Your task to perform on an android device: open app "Mercado Libre" (install if not already installed) Image 0: 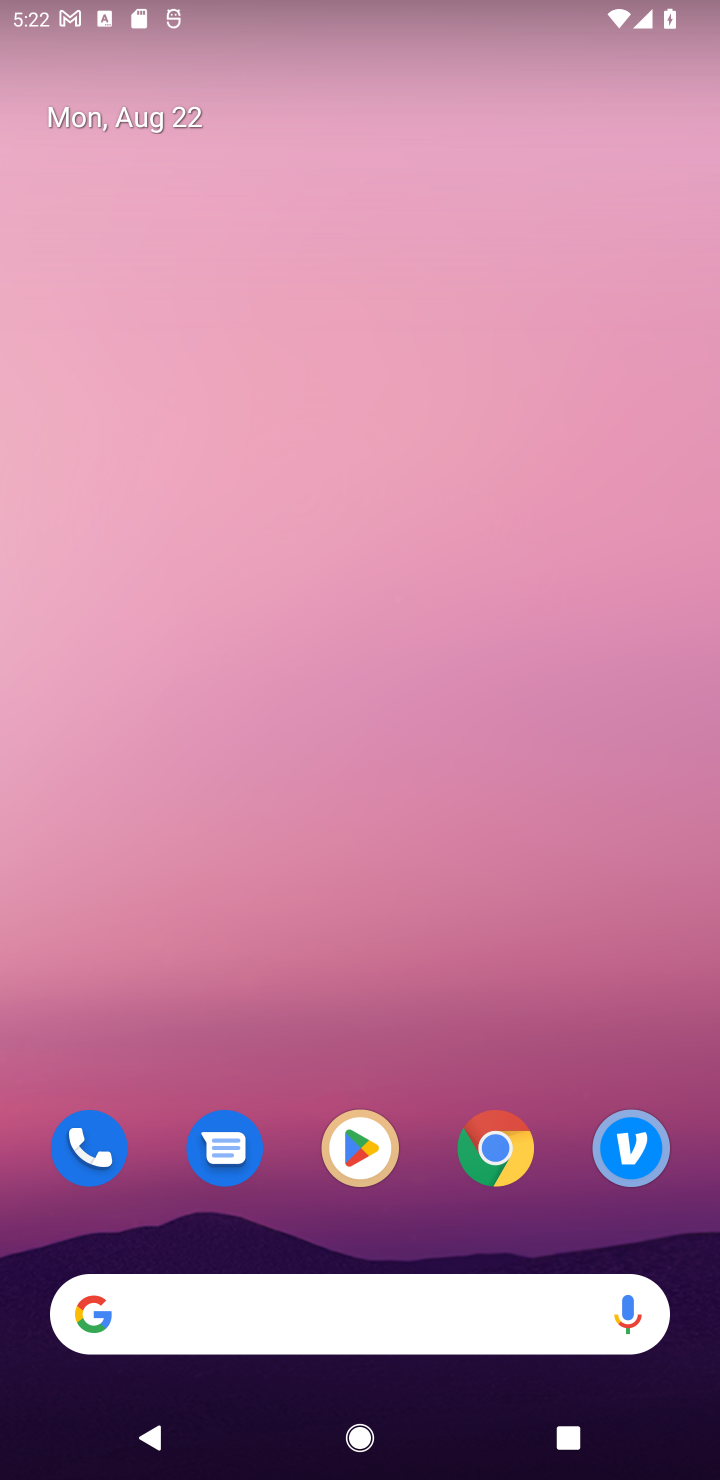
Step 0: click (358, 1154)
Your task to perform on an android device: open app "Mercado Libre" (install if not already installed) Image 1: 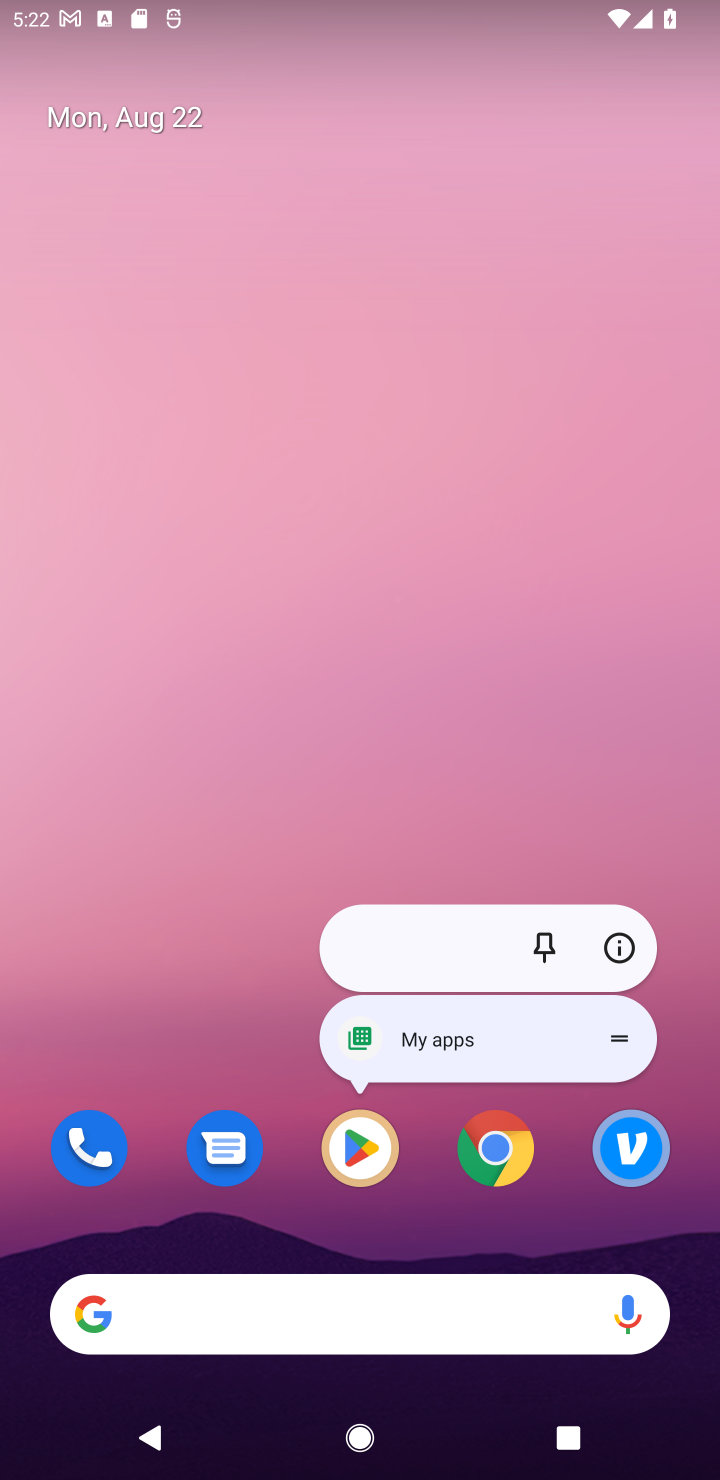
Step 1: click (377, 1140)
Your task to perform on an android device: open app "Mercado Libre" (install if not already installed) Image 2: 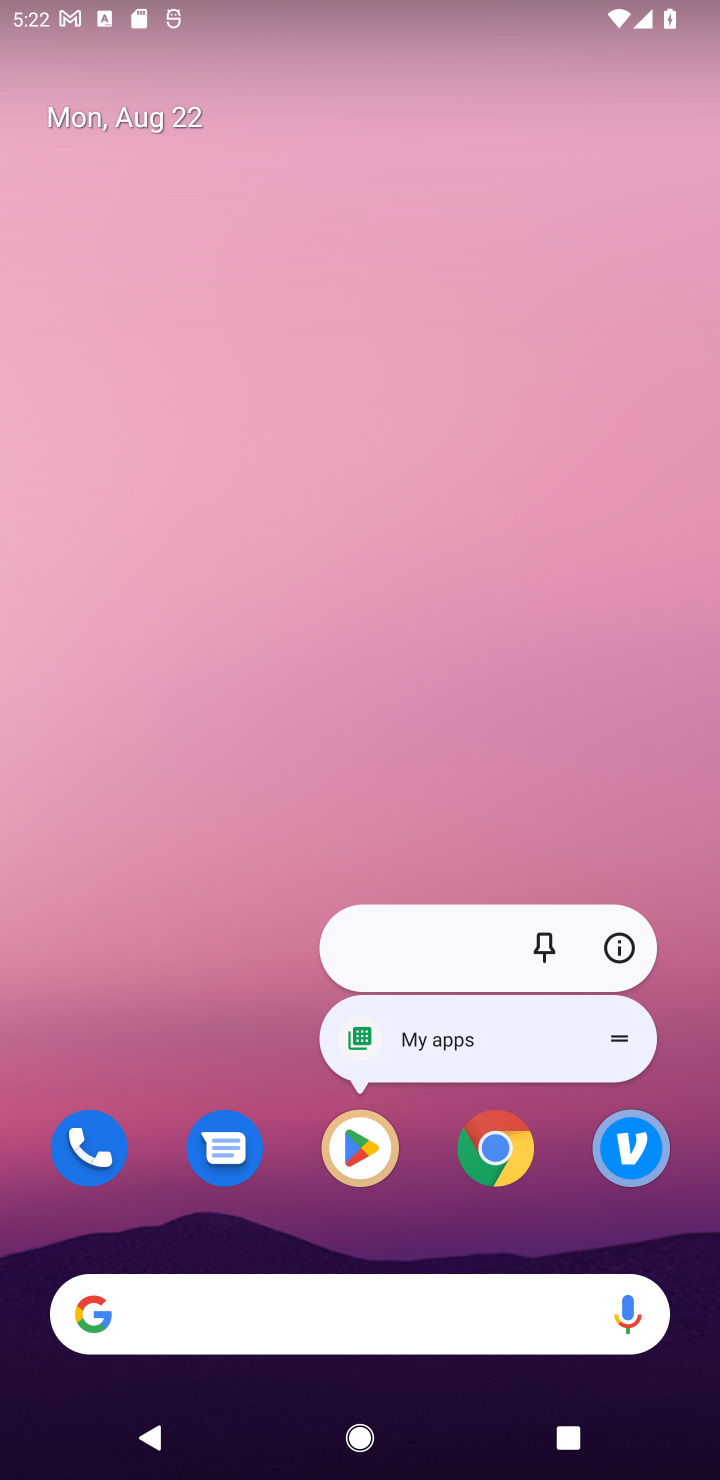
Step 2: click (368, 1165)
Your task to perform on an android device: open app "Mercado Libre" (install if not already installed) Image 3: 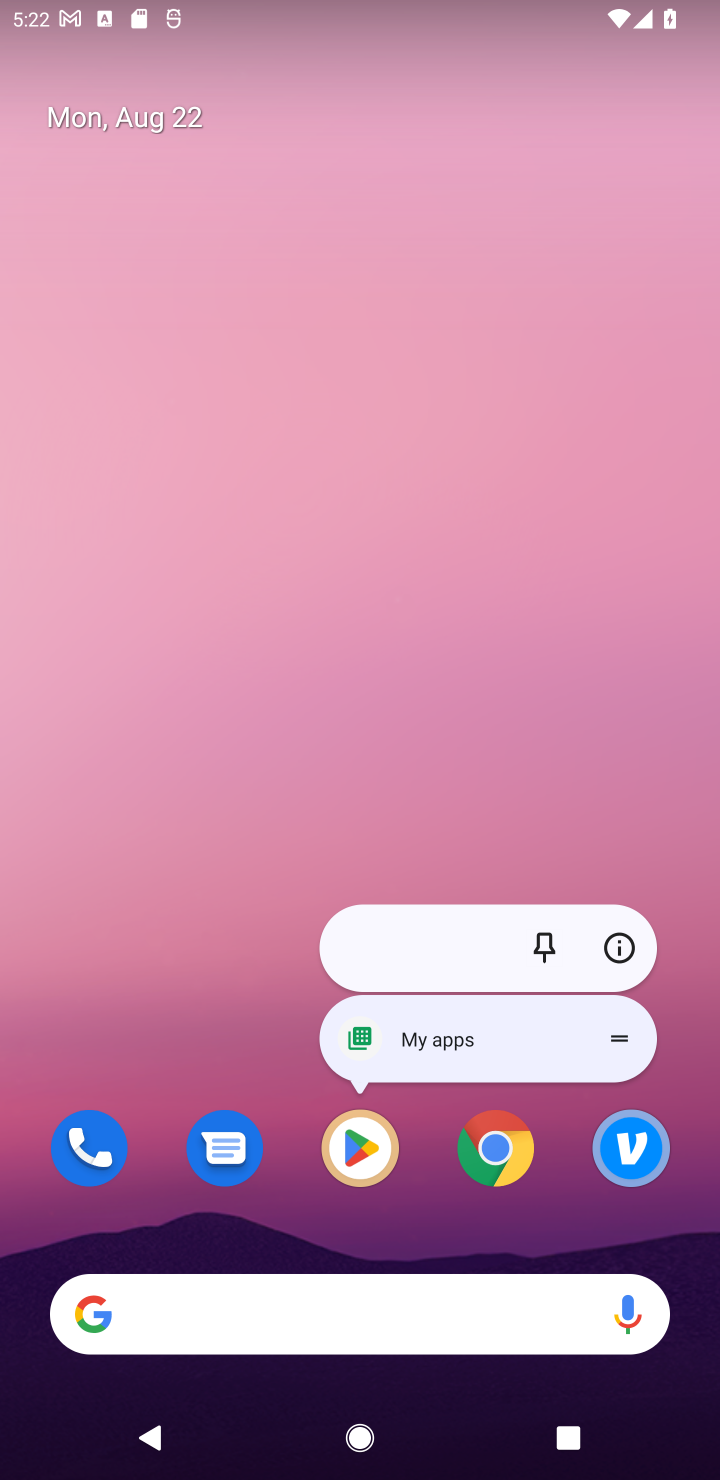
Step 3: click (363, 1163)
Your task to perform on an android device: open app "Mercado Libre" (install if not already installed) Image 4: 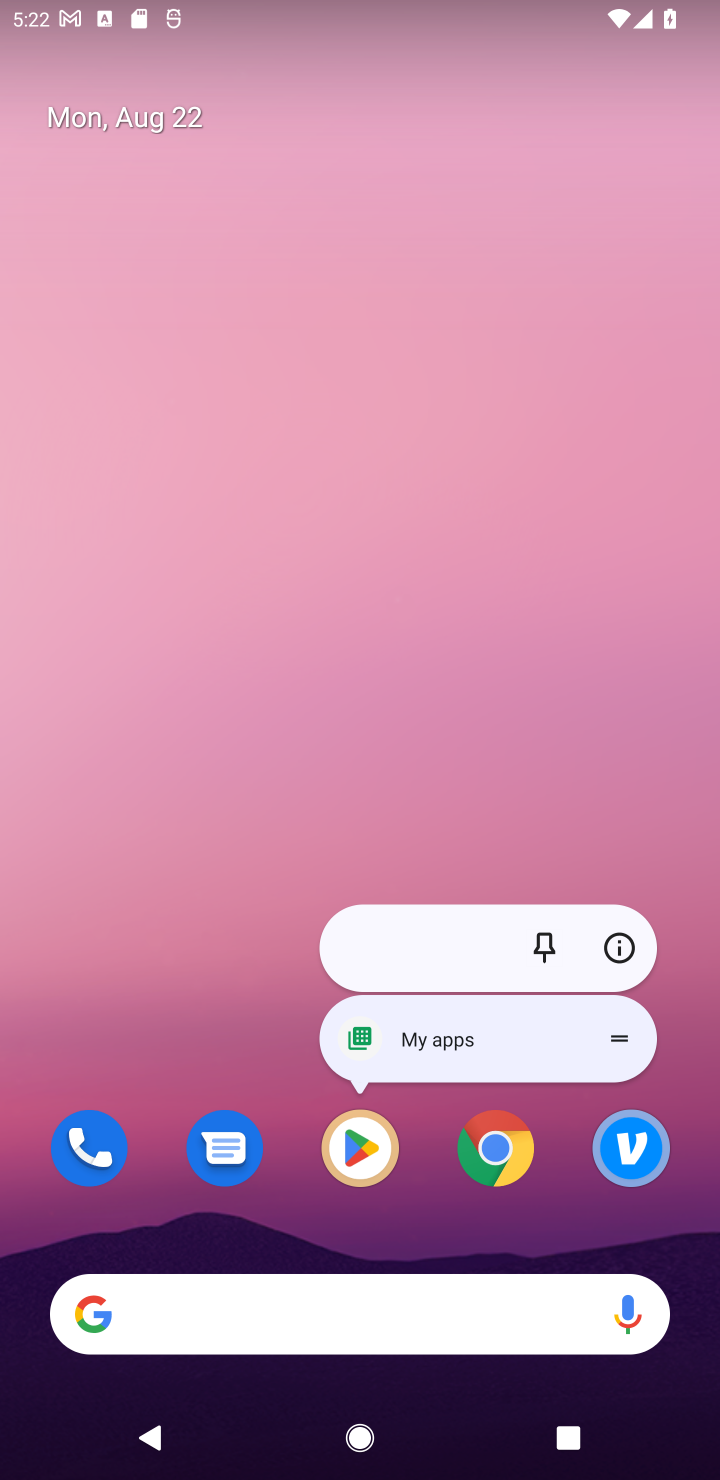
Step 4: click (361, 1161)
Your task to perform on an android device: open app "Mercado Libre" (install if not already installed) Image 5: 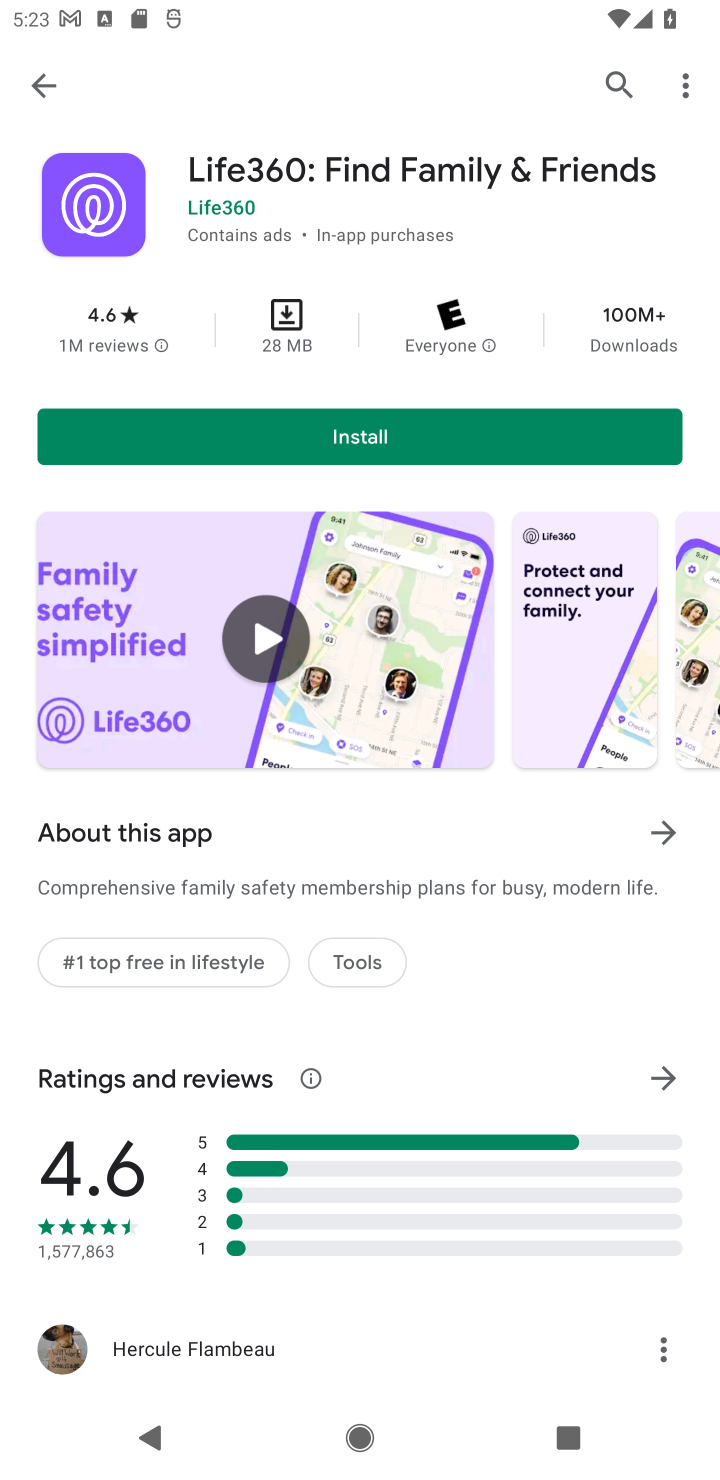
Step 5: click (617, 76)
Your task to perform on an android device: open app "Mercado Libre" (install if not already installed) Image 6: 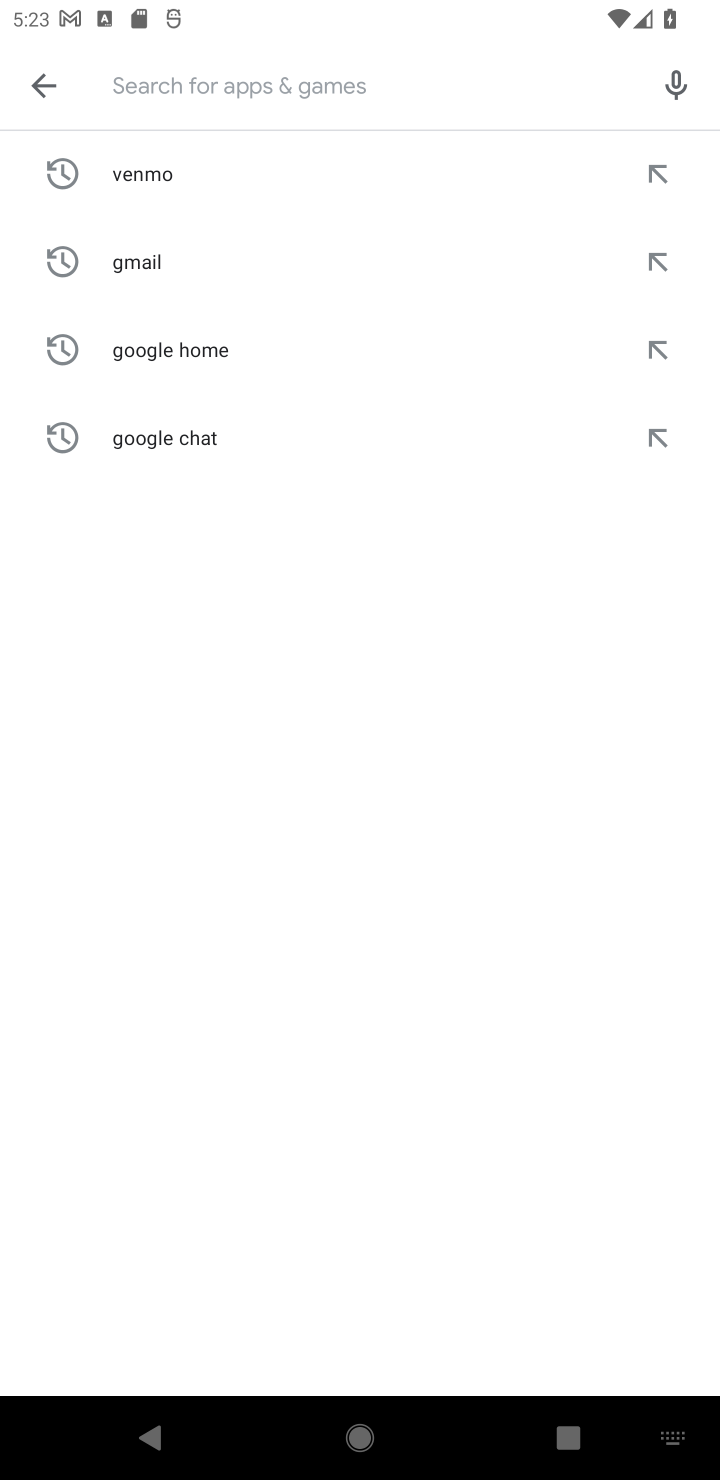
Step 6: type "Mercado Libre"
Your task to perform on an android device: open app "Mercado Libre" (install if not already installed) Image 7: 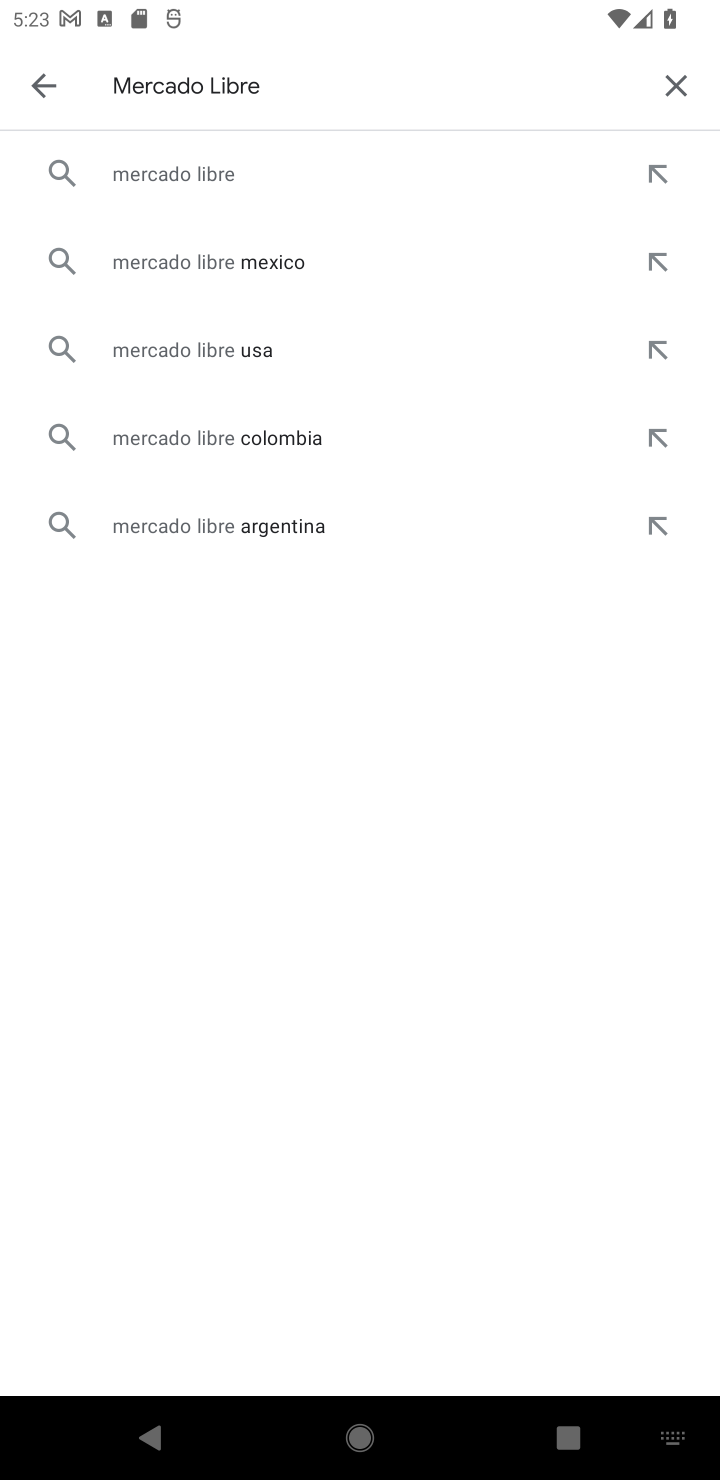
Step 7: click (195, 174)
Your task to perform on an android device: open app "Mercado Libre" (install if not already installed) Image 8: 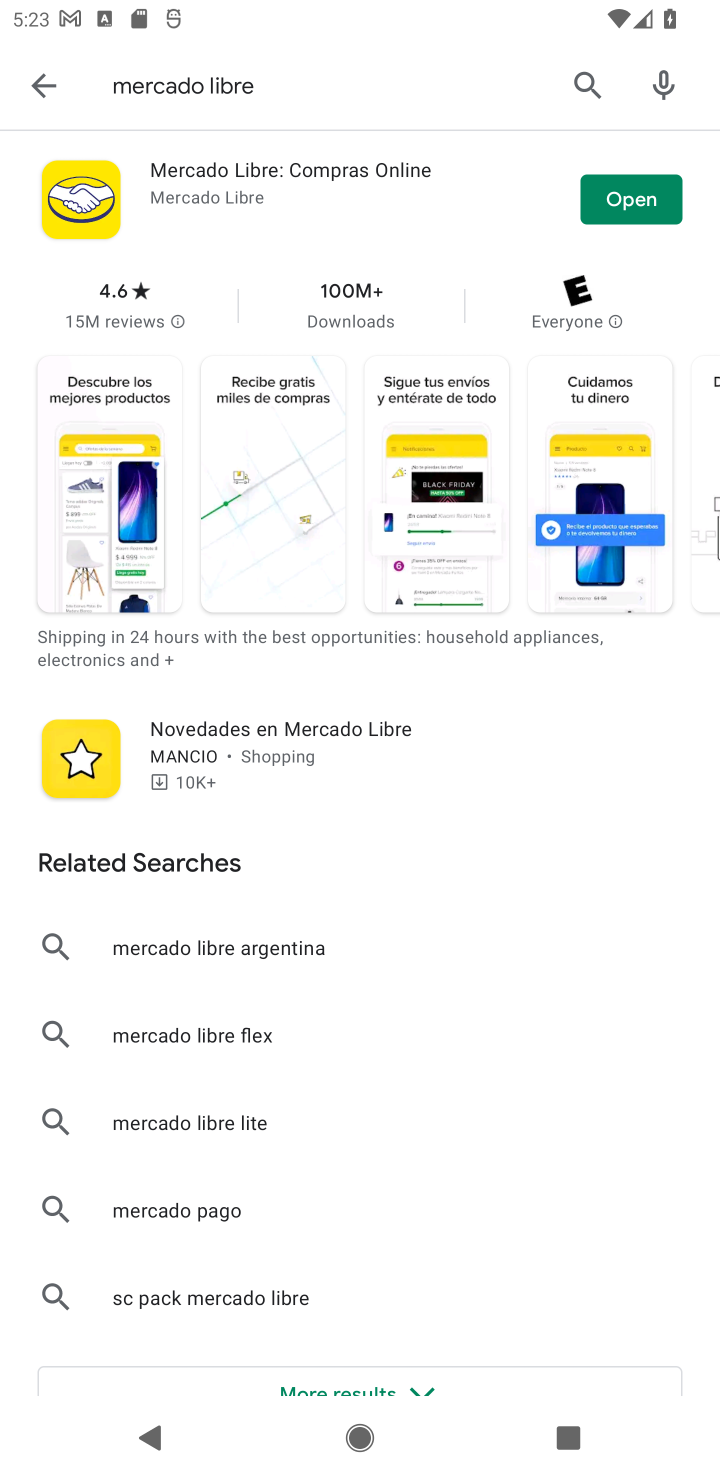
Step 8: click (639, 203)
Your task to perform on an android device: open app "Mercado Libre" (install if not already installed) Image 9: 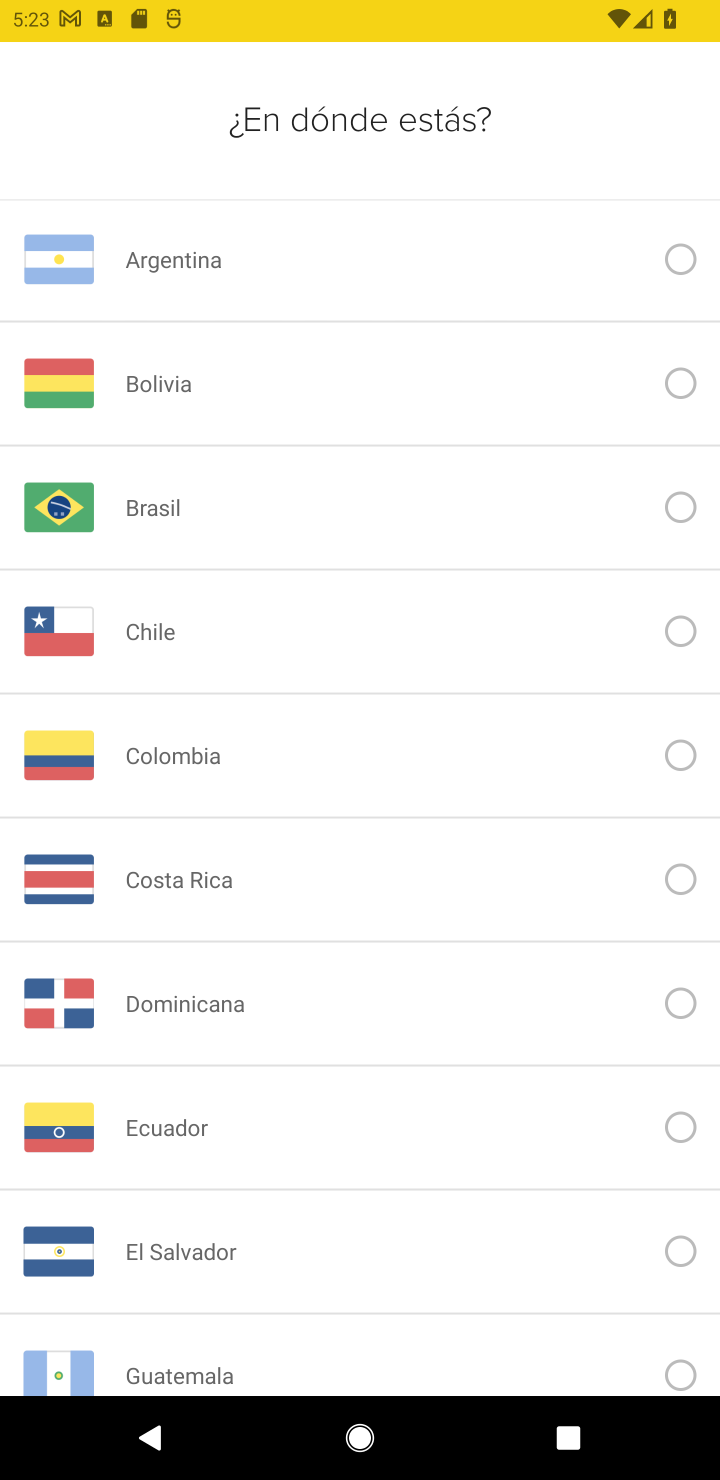
Step 9: task complete